Your task to perform on an android device: Open the map Image 0: 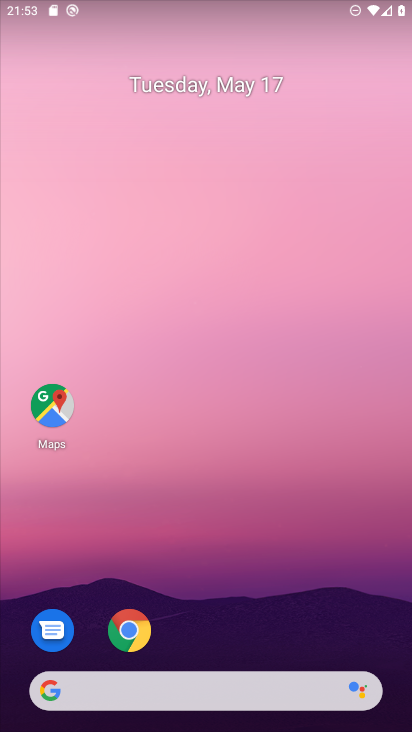
Step 0: drag from (336, 612) to (340, 273)
Your task to perform on an android device: Open the map Image 1: 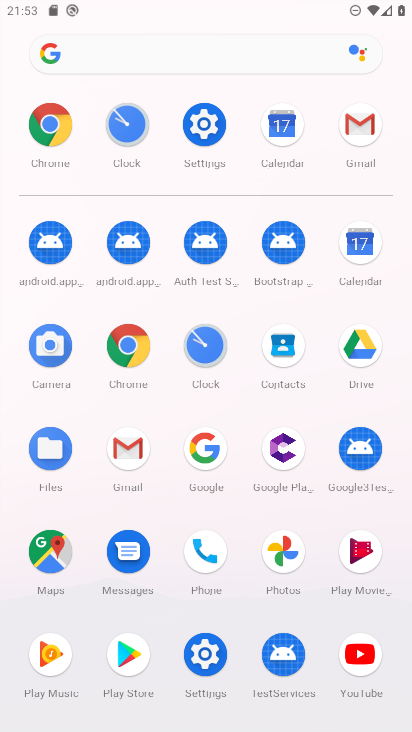
Step 1: click (46, 549)
Your task to perform on an android device: Open the map Image 2: 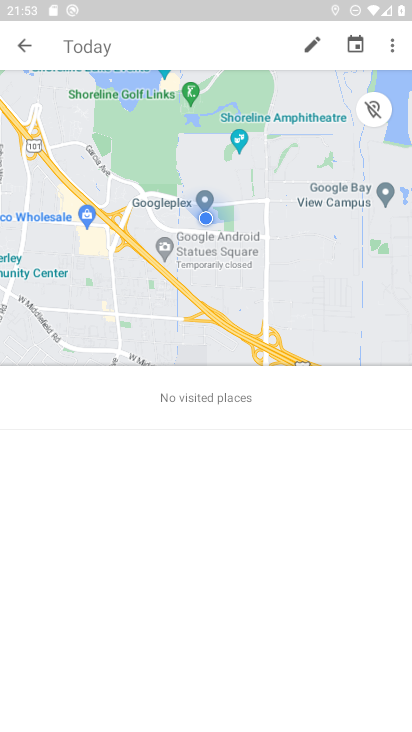
Step 2: task complete